Your task to perform on an android device: Open Maps and search for coffee Image 0: 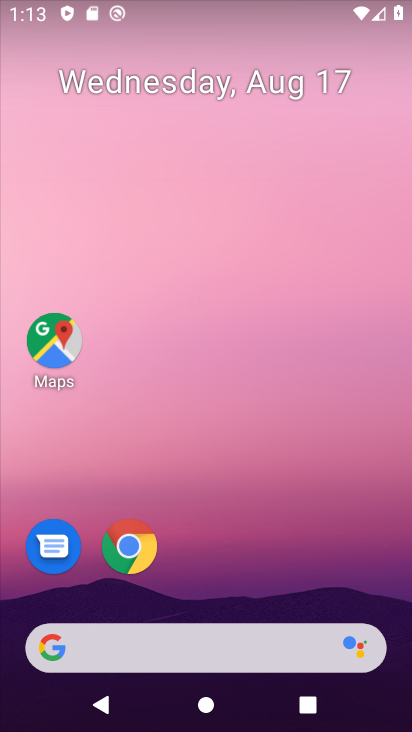
Step 0: click (46, 316)
Your task to perform on an android device: Open Maps and search for coffee Image 1: 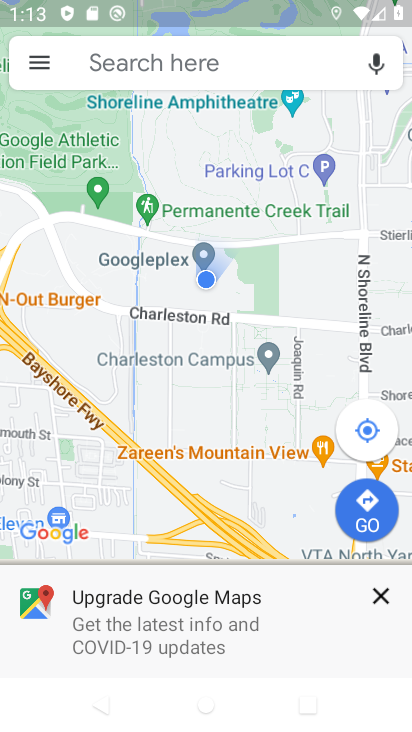
Step 1: click (174, 54)
Your task to perform on an android device: Open Maps and search for coffee Image 2: 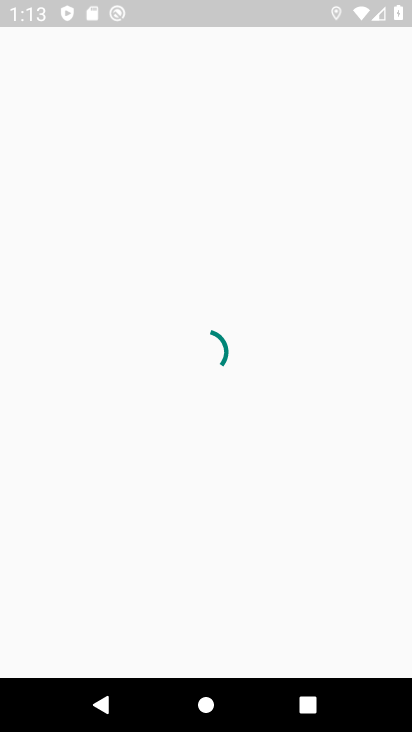
Step 2: type "coffee"
Your task to perform on an android device: Open Maps and search for coffee Image 3: 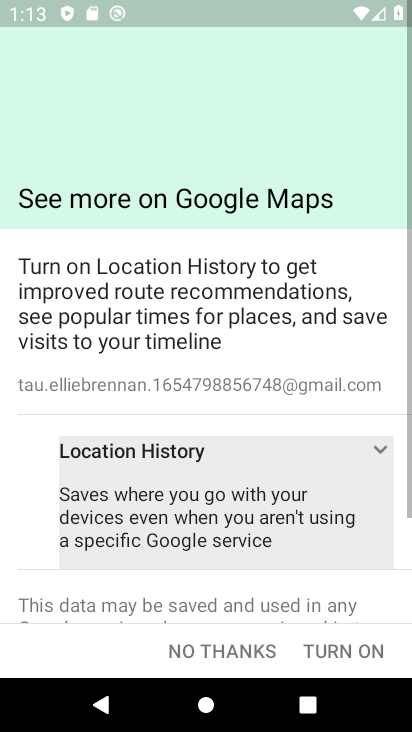
Step 3: type ""
Your task to perform on an android device: Open Maps and search for coffee Image 4: 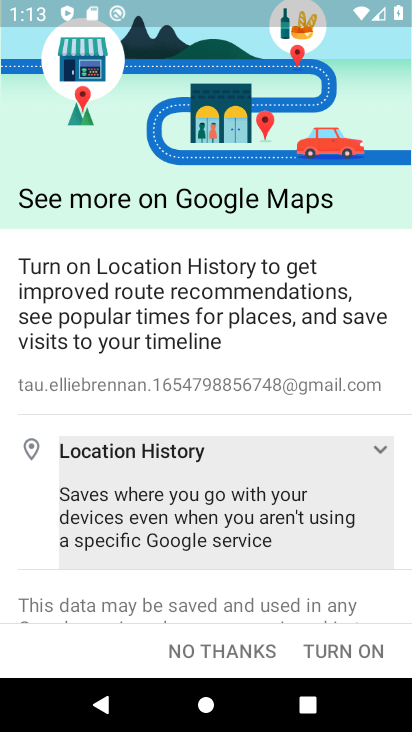
Step 4: click (311, 648)
Your task to perform on an android device: Open Maps and search for coffee Image 5: 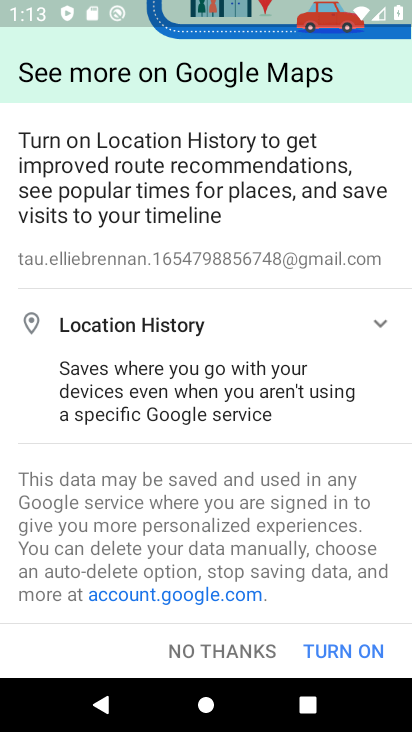
Step 5: click (311, 648)
Your task to perform on an android device: Open Maps and search for coffee Image 6: 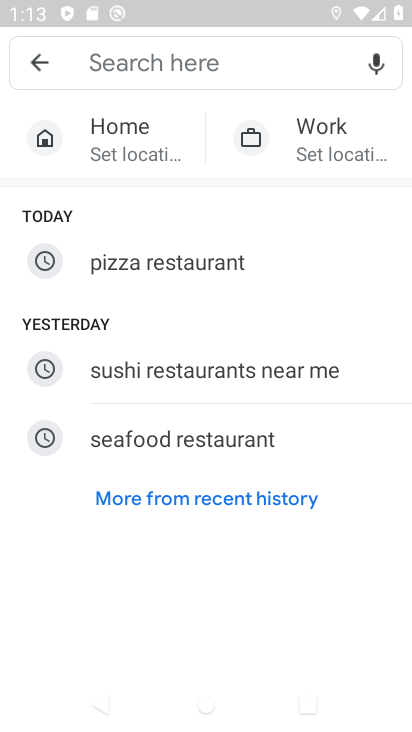
Step 6: click (132, 70)
Your task to perform on an android device: Open Maps and search for coffee Image 7: 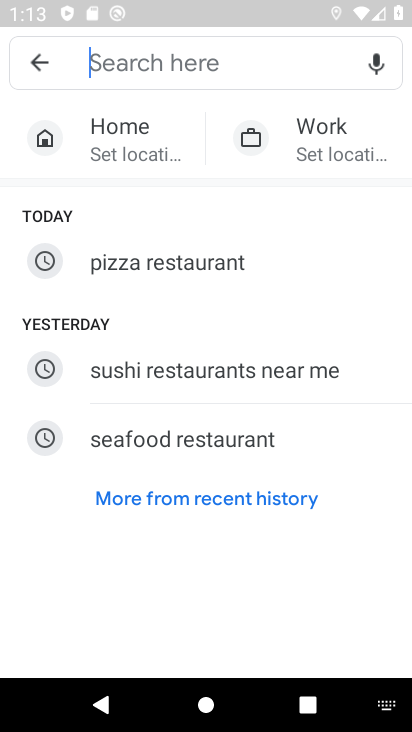
Step 7: type "coffee"
Your task to perform on an android device: Open Maps and search for coffee Image 8: 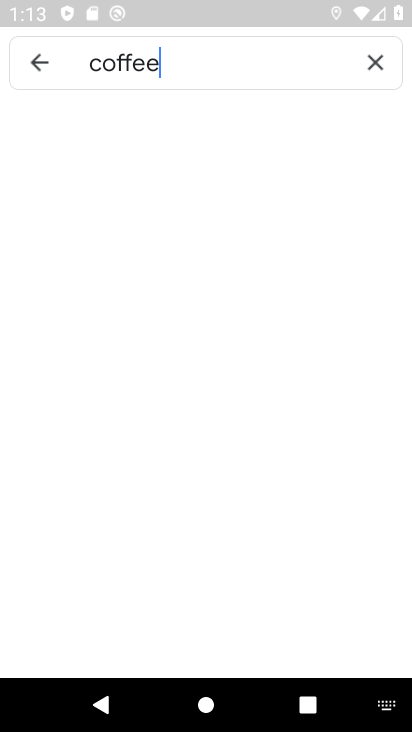
Step 8: type ""
Your task to perform on an android device: Open Maps and search for coffee Image 9: 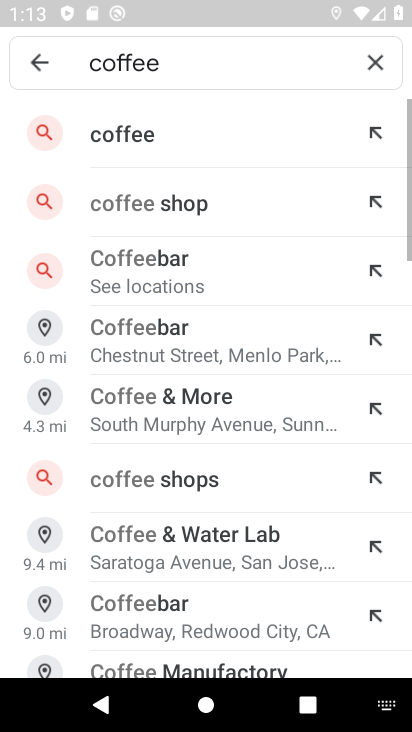
Step 9: click (152, 141)
Your task to perform on an android device: Open Maps and search for coffee Image 10: 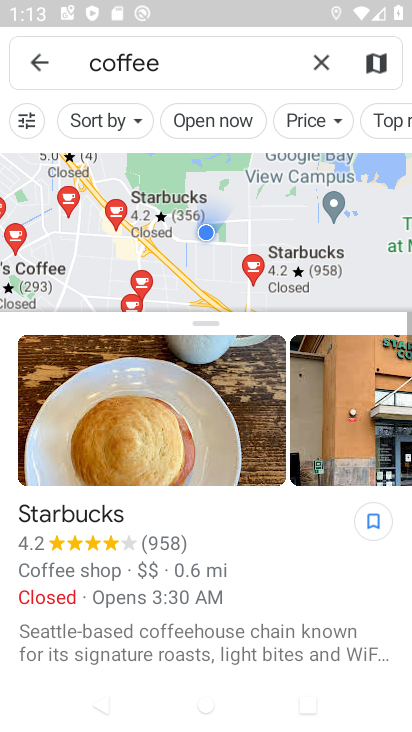
Step 10: task complete